Your task to perform on an android device: Find coffee shops on Maps Image 0: 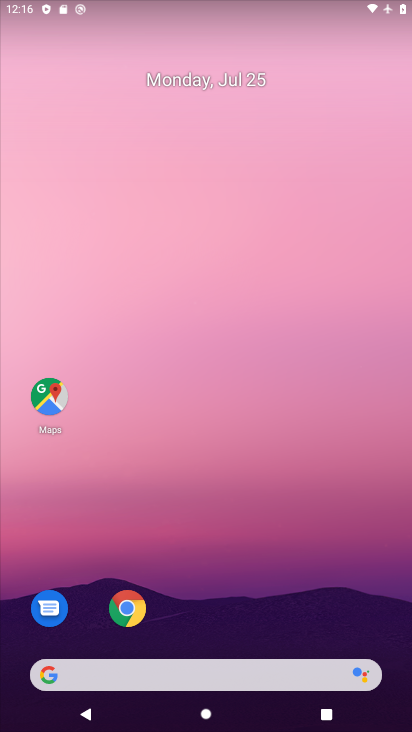
Step 0: drag from (193, 583) to (272, 48)
Your task to perform on an android device: Find coffee shops on Maps Image 1: 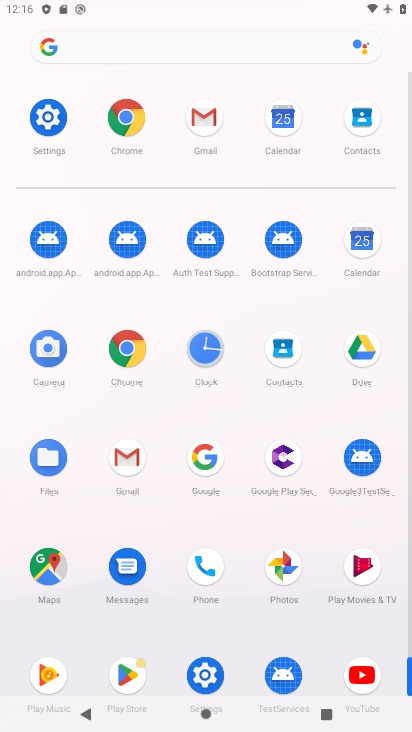
Step 1: click (51, 562)
Your task to perform on an android device: Find coffee shops on Maps Image 2: 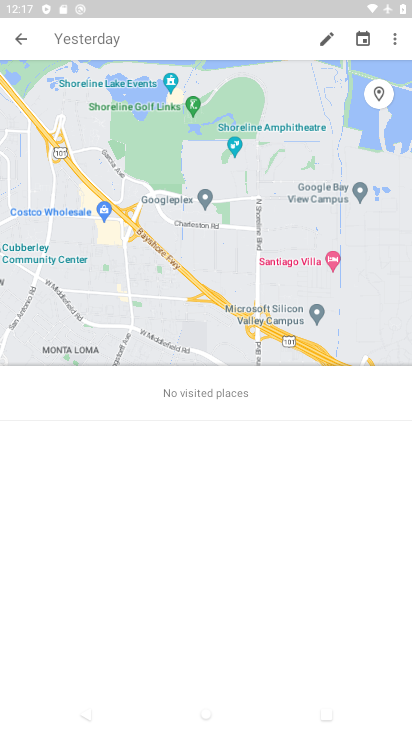
Step 2: click (23, 35)
Your task to perform on an android device: Find coffee shops on Maps Image 3: 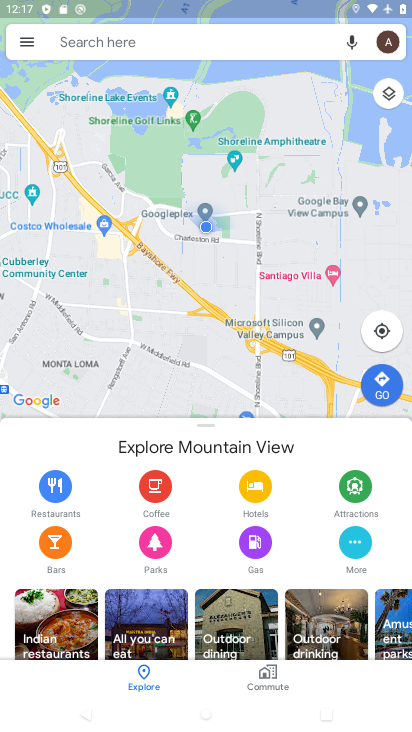
Step 3: click (150, 43)
Your task to perform on an android device: Find coffee shops on Maps Image 4: 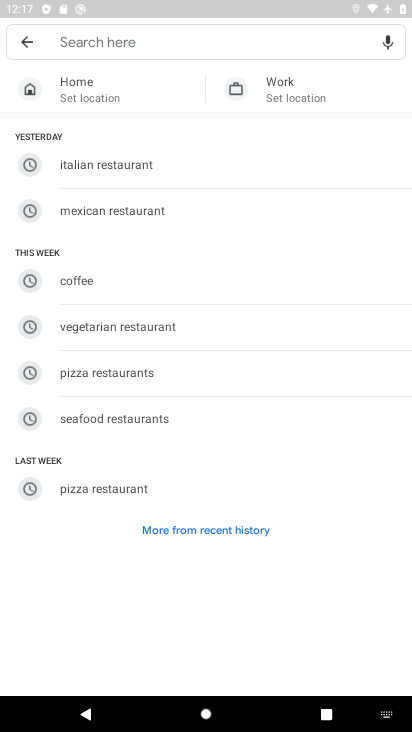
Step 4: click (114, 43)
Your task to perform on an android device: Find coffee shops on Maps Image 5: 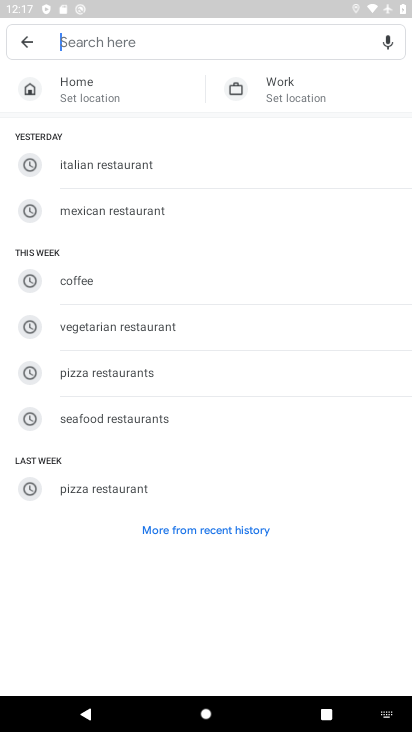
Step 5: type "coffee shops"
Your task to perform on an android device: Find coffee shops on Maps Image 6: 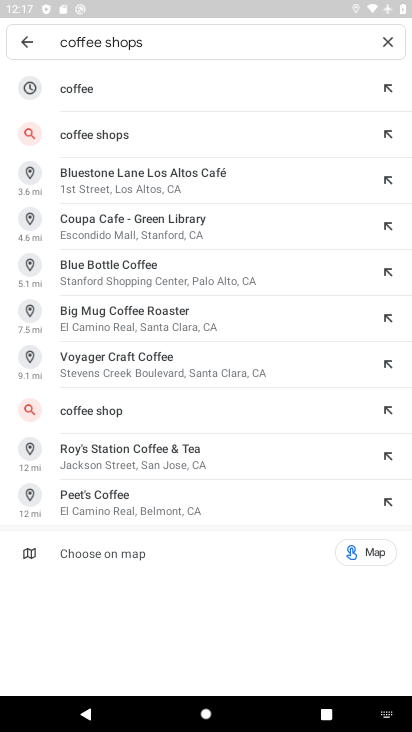
Step 6: click (103, 130)
Your task to perform on an android device: Find coffee shops on Maps Image 7: 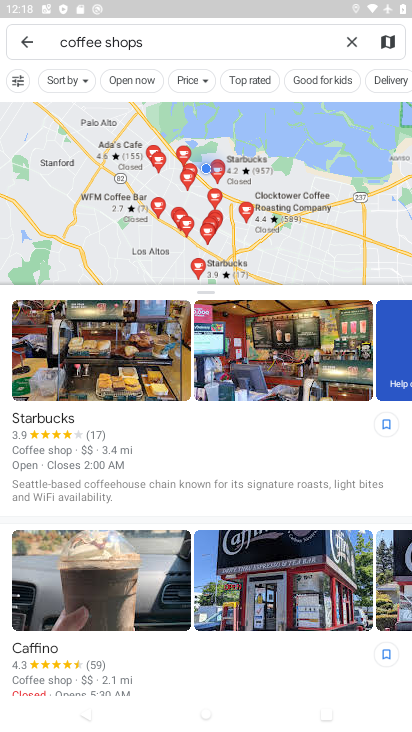
Step 7: task complete